Your task to perform on an android device: show emergency info Image 0: 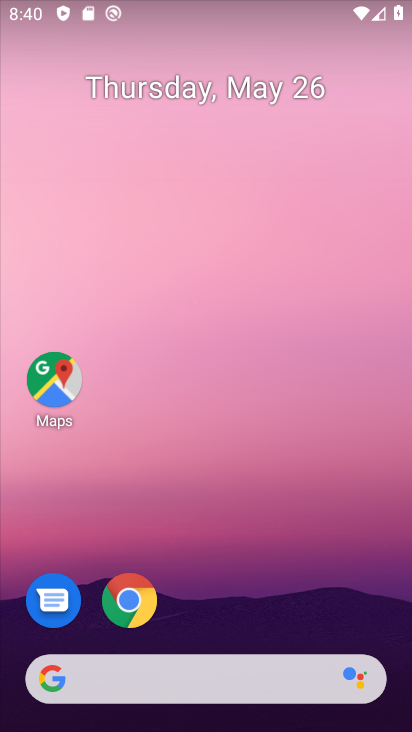
Step 0: drag from (227, 609) to (202, 29)
Your task to perform on an android device: show emergency info Image 1: 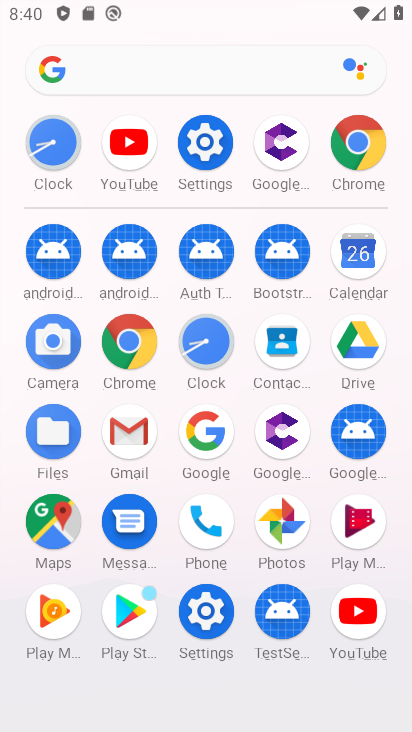
Step 1: click (197, 621)
Your task to perform on an android device: show emergency info Image 2: 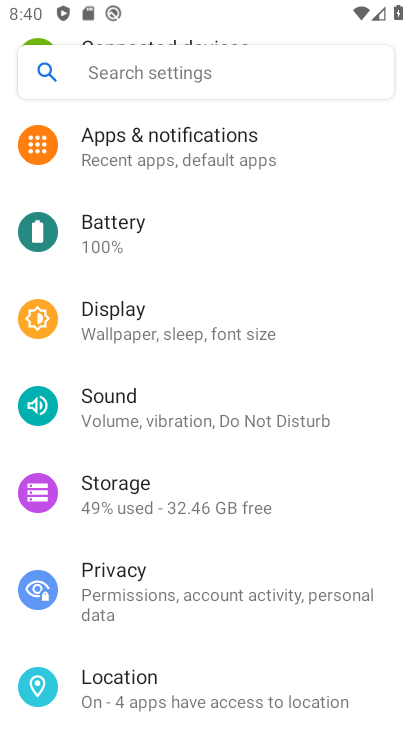
Step 2: drag from (132, 611) to (188, 185)
Your task to perform on an android device: show emergency info Image 3: 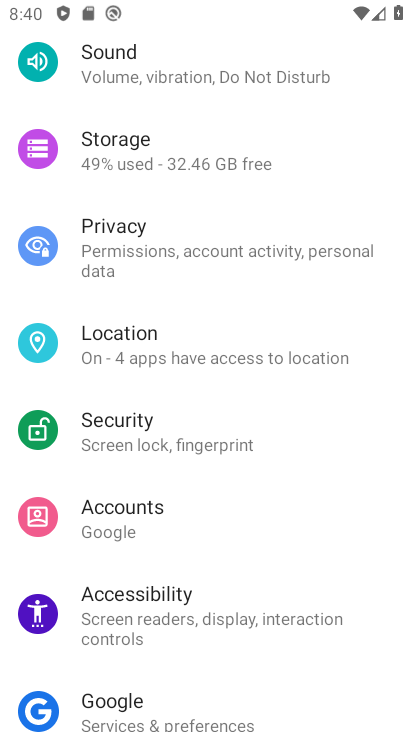
Step 3: drag from (167, 594) to (228, 43)
Your task to perform on an android device: show emergency info Image 4: 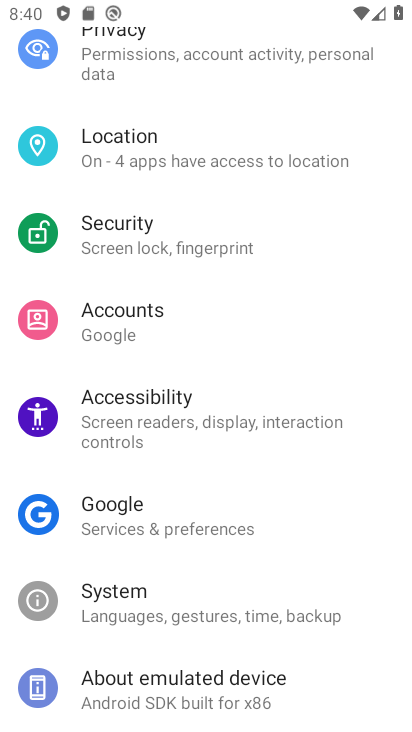
Step 4: click (158, 687)
Your task to perform on an android device: show emergency info Image 5: 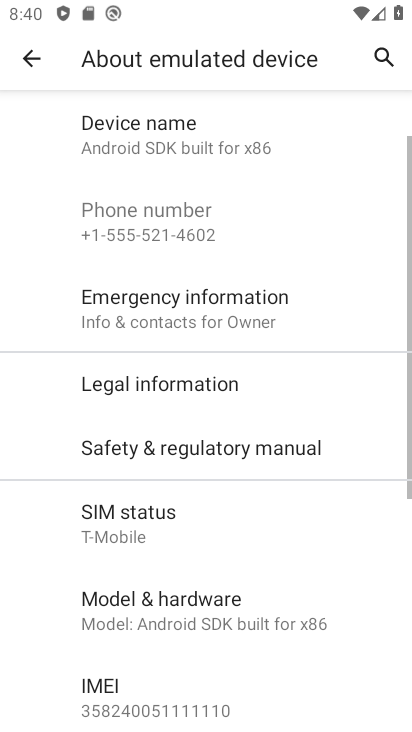
Step 5: click (183, 313)
Your task to perform on an android device: show emergency info Image 6: 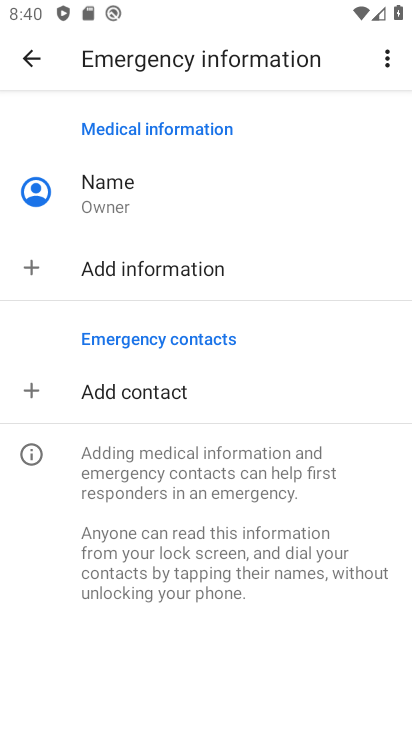
Step 6: task complete